Your task to perform on an android device: turn off javascript in the chrome app Image 0: 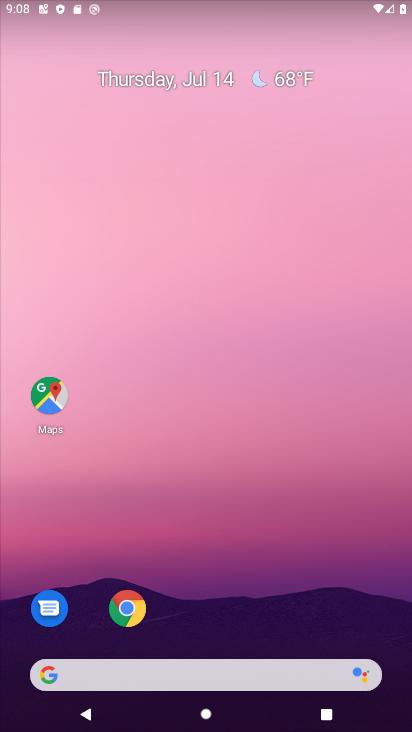
Step 0: click (135, 603)
Your task to perform on an android device: turn off javascript in the chrome app Image 1: 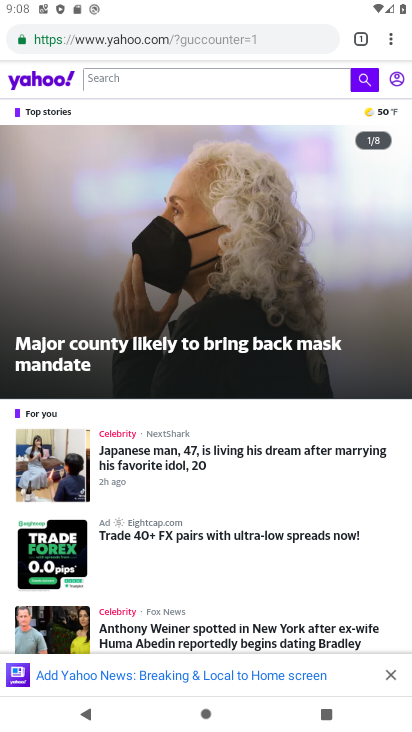
Step 1: drag from (384, 44) to (281, 475)
Your task to perform on an android device: turn off javascript in the chrome app Image 2: 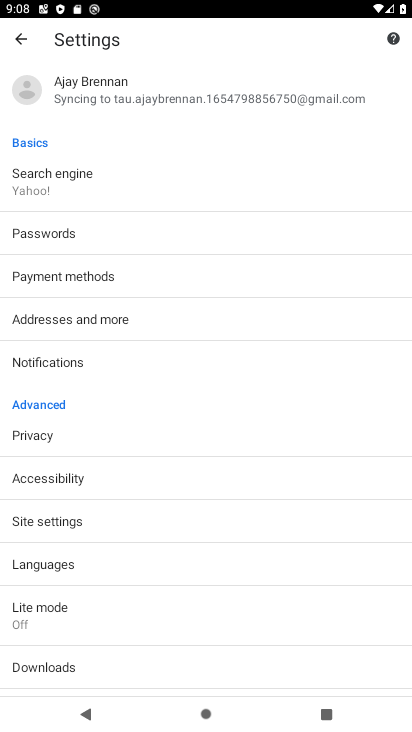
Step 2: click (65, 528)
Your task to perform on an android device: turn off javascript in the chrome app Image 3: 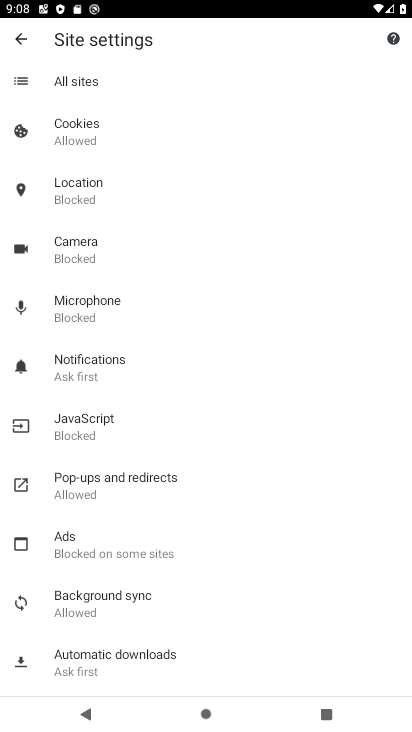
Step 3: click (88, 428)
Your task to perform on an android device: turn off javascript in the chrome app Image 4: 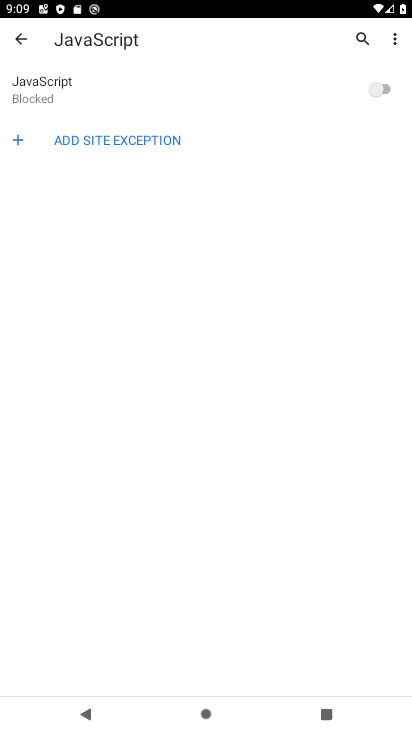
Step 4: task complete